Your task to perform on an android device: open app "YouTube Kids" (install if not already installed), go to login, and select forgot password Image 0: 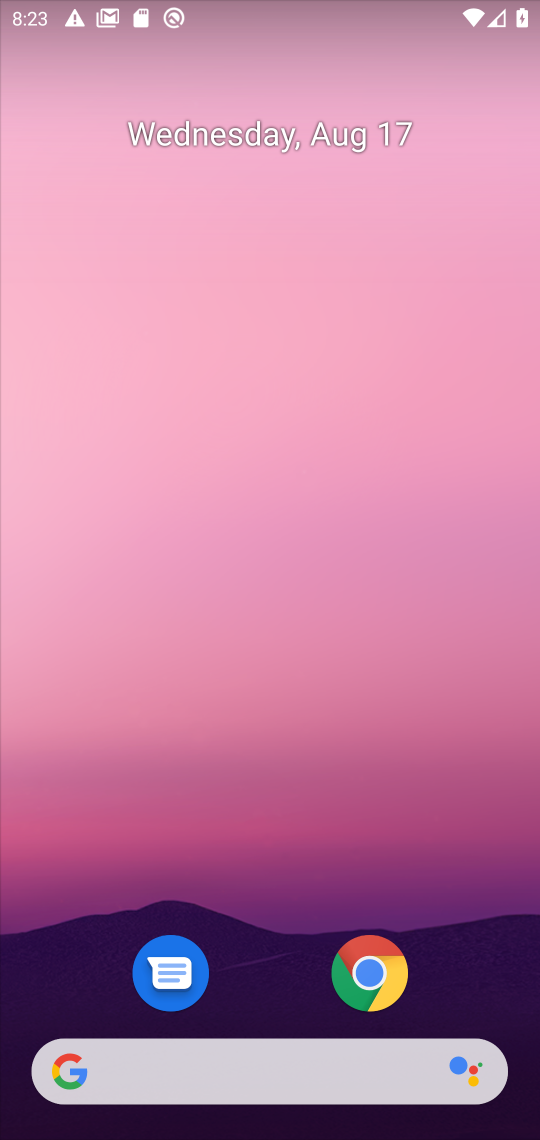
Step 0: press home button
Your task to perform on an android device: open app "YouTube Kids" (install if not already installed), go to login, and select forgot password Image 1: 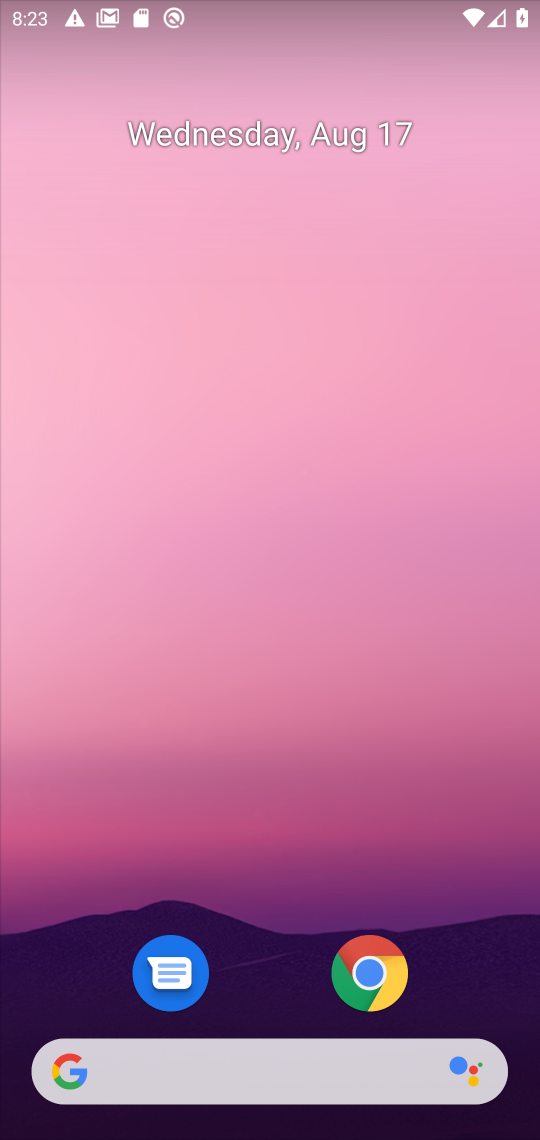
Step 1: press home button
Your task to perform on an android device: open app "YouTube Kids" (install if not already installed), go to login, and select forgot password Image 2: 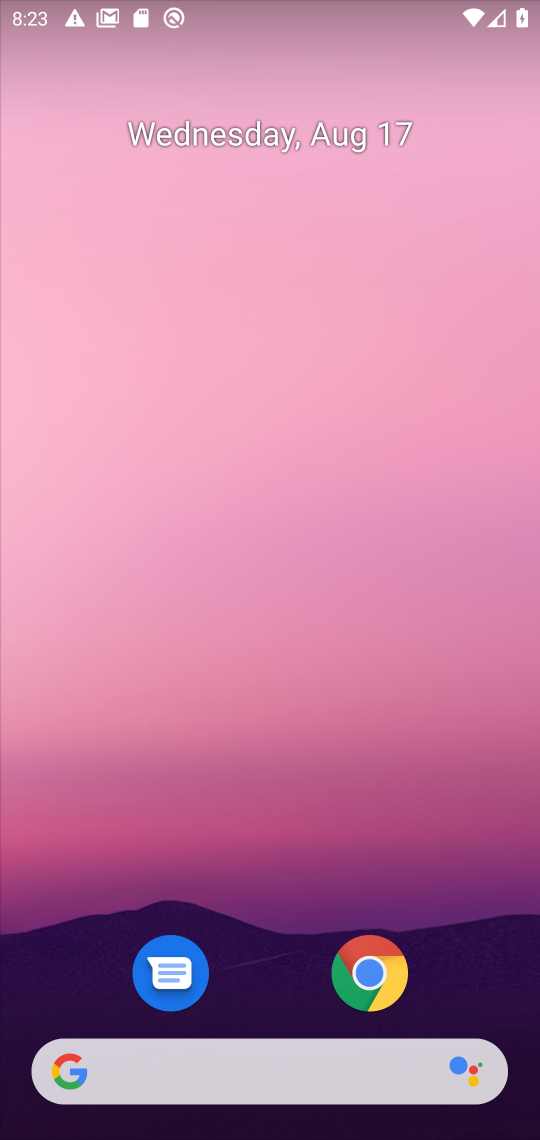
Step 2: drag from (220, 1080) to (328, 163)
Your task to perform on an android device: open app "YouTube Kids" (install if not already installed), go to login, and select forgot password Image 3: 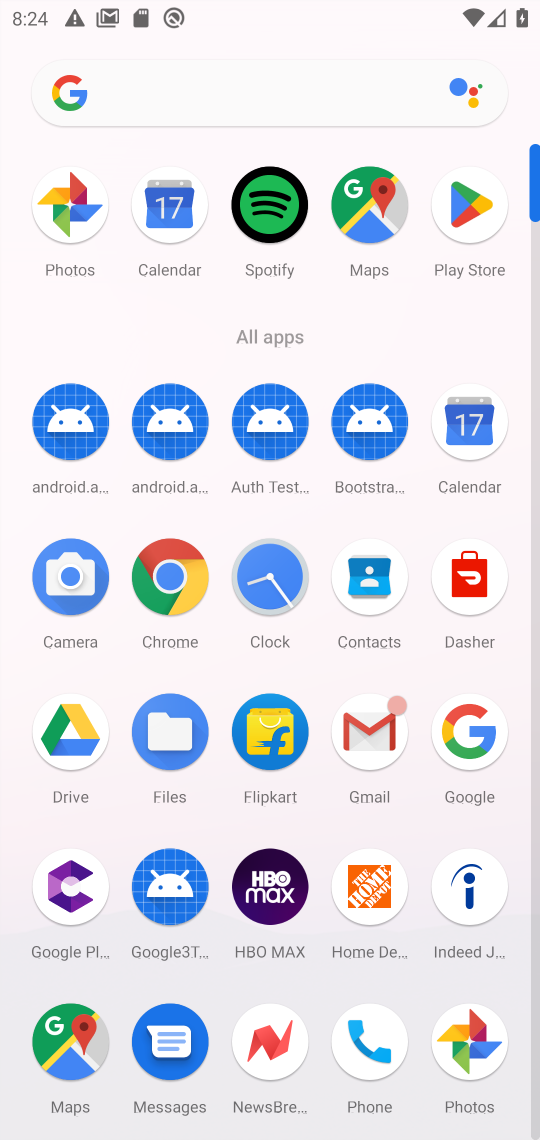
Step 3: click (483, 207)
Your task to perform on an android device: open app "YouTube Kids" (install if not already installed), go to login, and select forgot password Image 4: 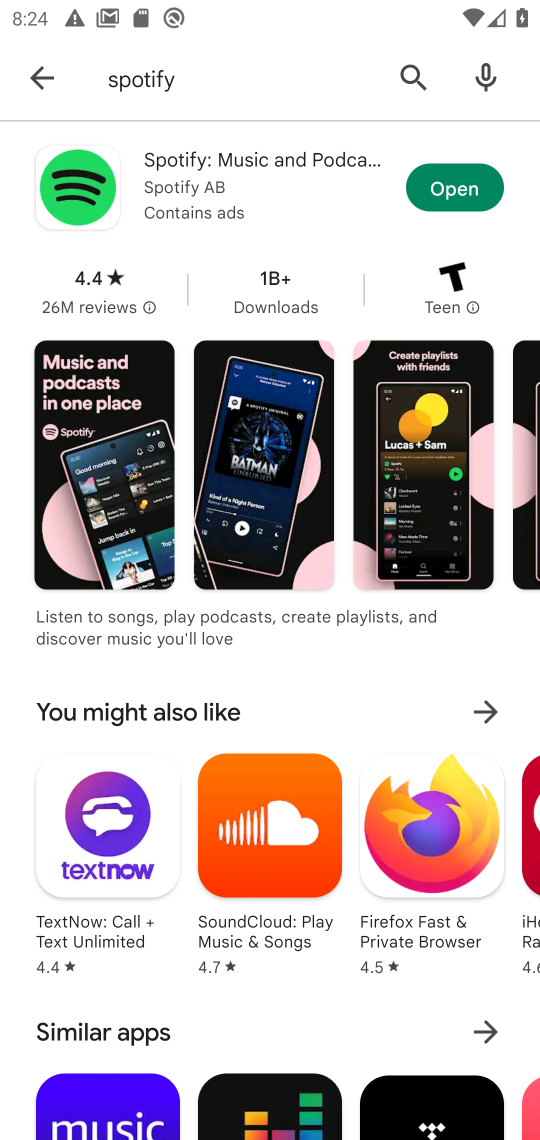
Step 4: click (44, 73)
Your task to perform on an android device: open app "YouTube Kids" (install if not already installed), go to login, and select forgot password Image 5: 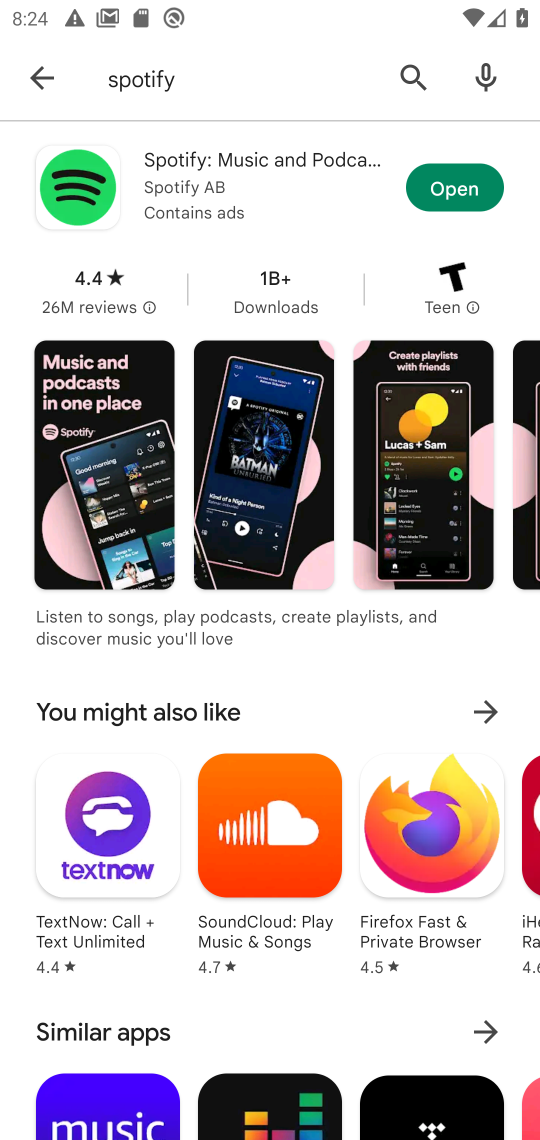
Step 5: click (44, 73)
Your task to perform on an android device: open app "YouTube Kids" (install if not already installed), go to login, and select forgot password Image 6: 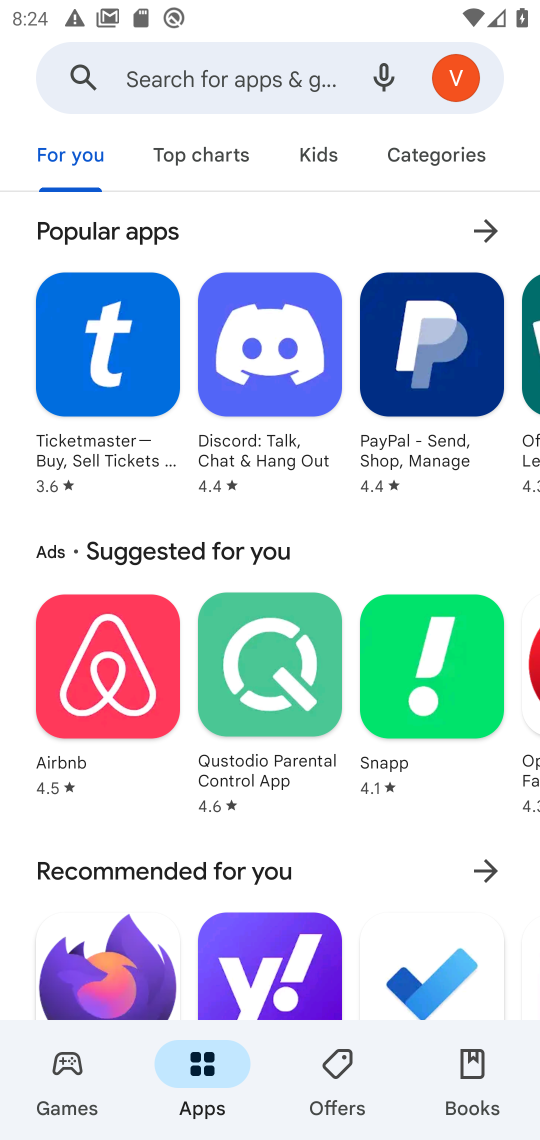
Step 6: click (285, 66)
Your task to perform on an android device: open app "YouTube Kids" (install if not already installed), go to login, and select forgot password Image 7: 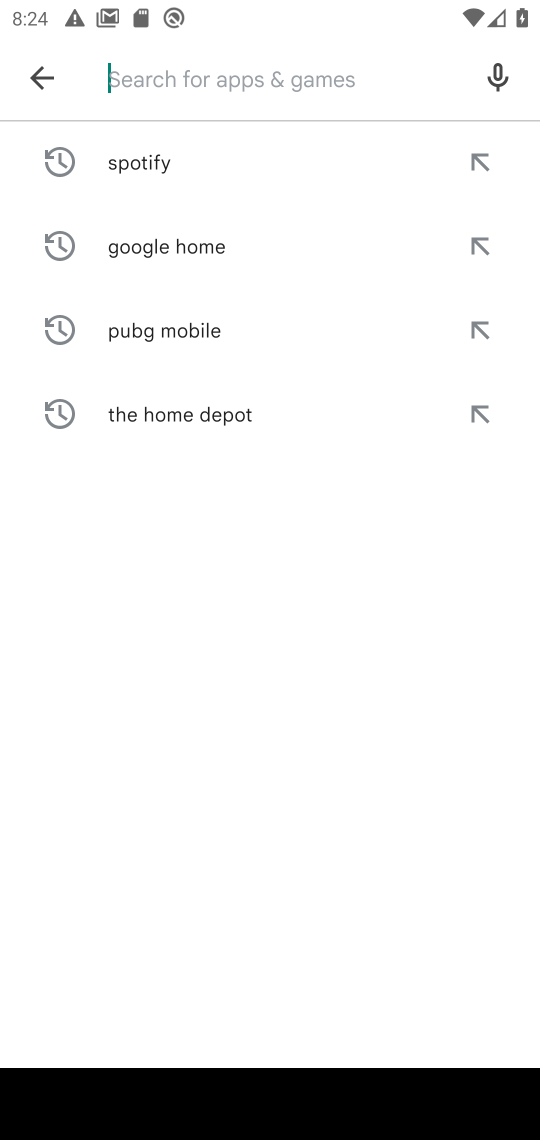
Step 7: type "YouTube Kids"
Your task to perform on an android device: open app "YouTube Kids" (install if not already installed), go to login, and select forgot password Image 8: 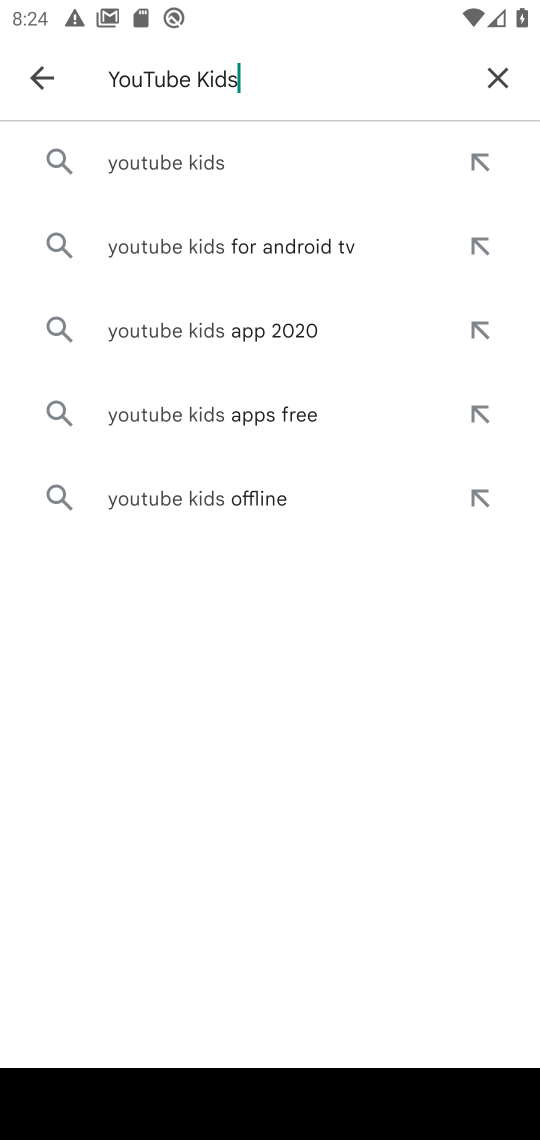
Step 8: click (372, 160)
Your task to perform on an android device: open app "YouTube Kids" (install if not already installed), go to login, and select forgot password Image 9: 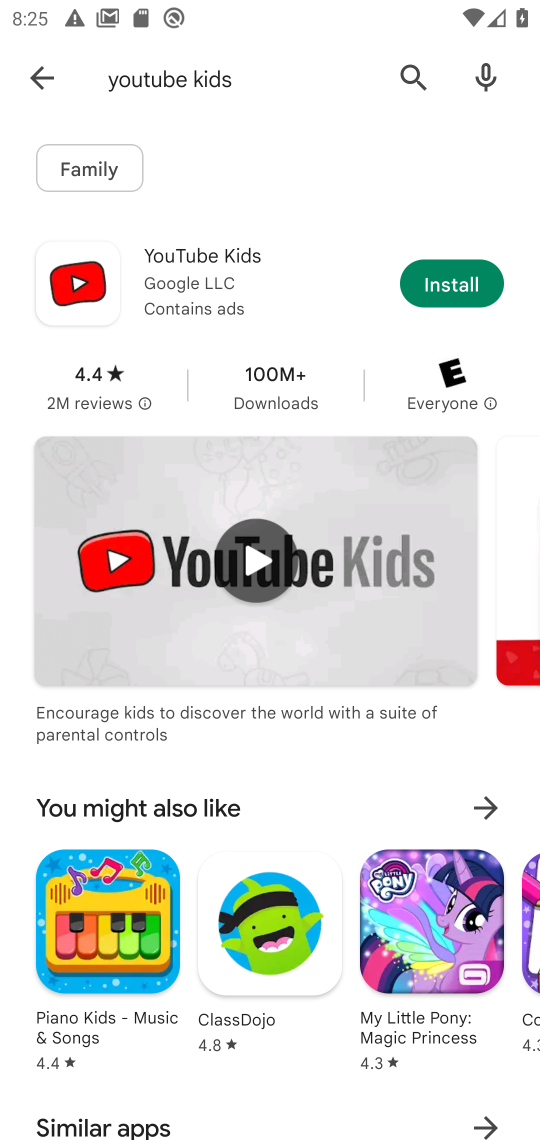
Step 9: click (442, 282)
Your task to perform on an android device: open app "YouTube Kids" (install if not already installed), go to login, and select forgot password Image 10: 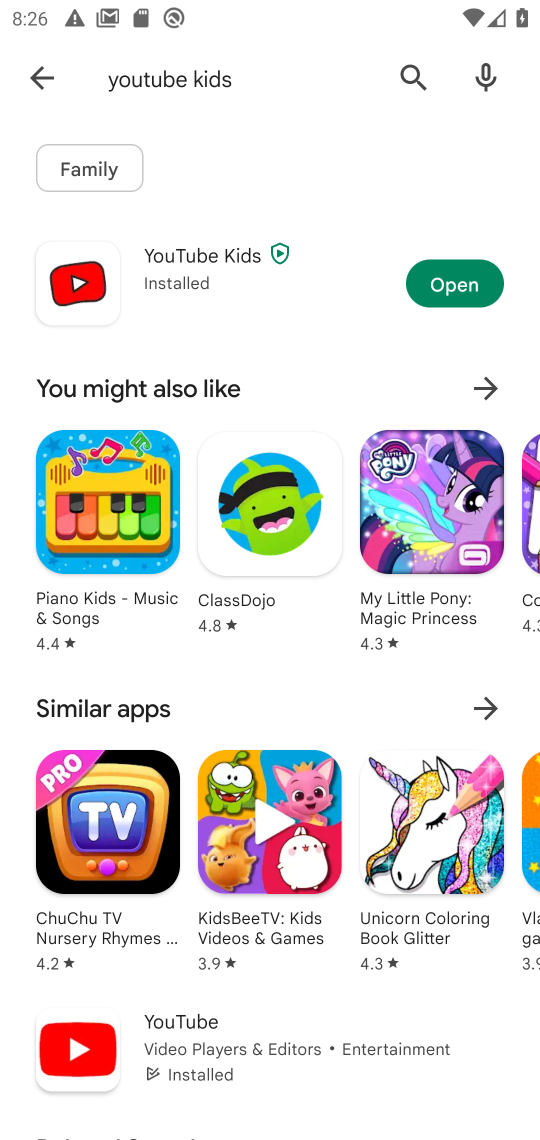
Step 10: click (418, 271)
Your task to perform on an android device: open app "YouTube Kids" (install if not already installed), go to login, and select forgot password Image 11: 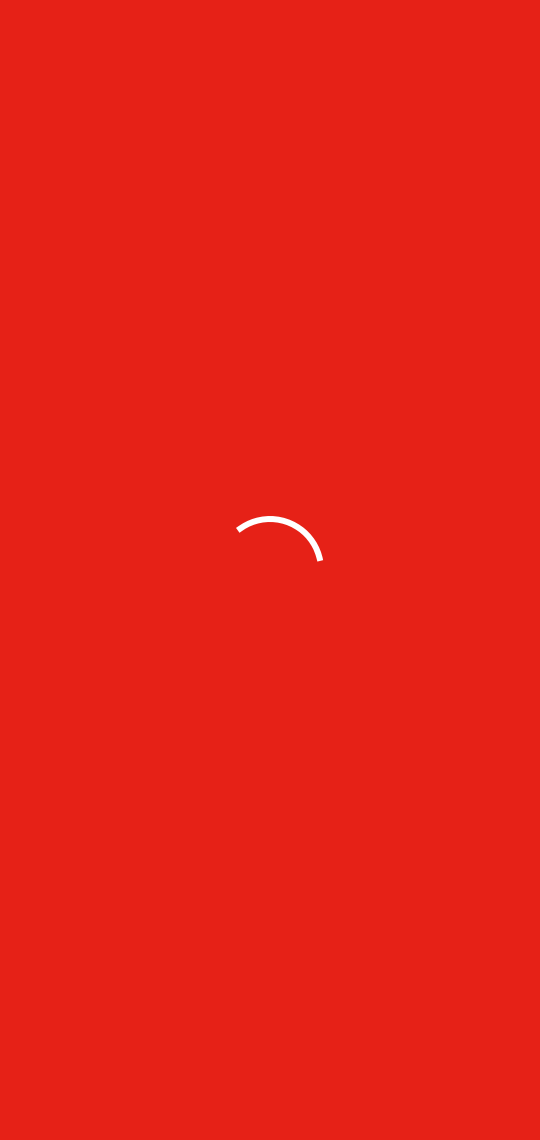
Step 11: task complete